Your task to perform on an android device: read, delete, or share a saved page in the chrome app Image 0: 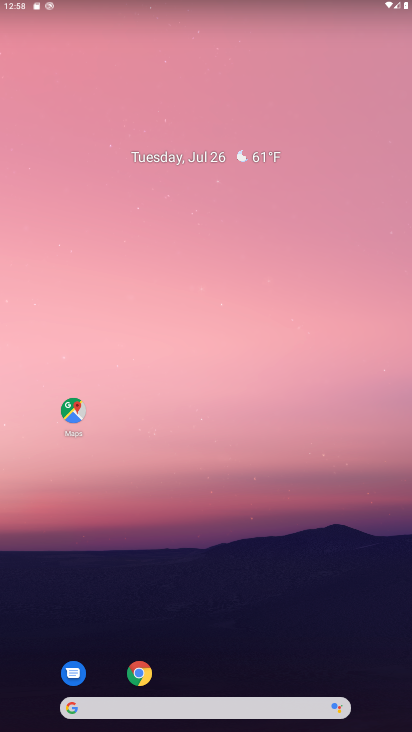
Step 0: click (141, 670)
Your task to perform on an android device: read, delete, or share a saved page in the chrome app Image 1: 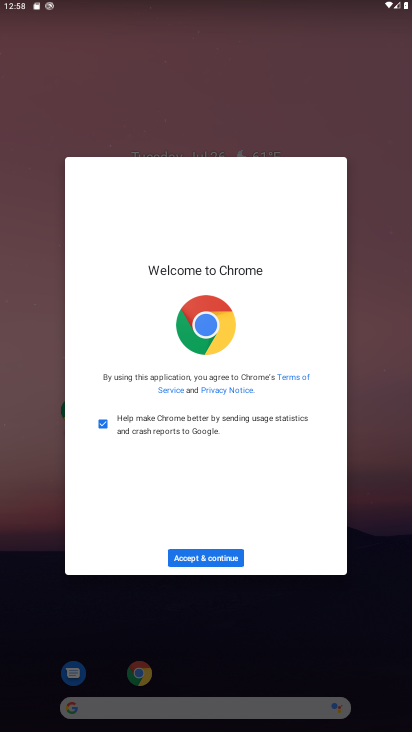
Step 1: click (207, 563)
Your task to perform on an android device: read, delete, or share a saved page in the chrome app Image 2: 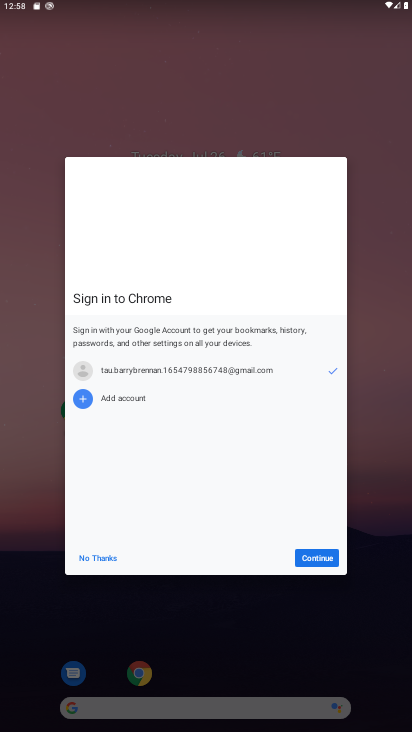
Step 2: click (326, 555)
Your task to perform on an android device: read, delete, or share a saved page in the chrome app Image 3: 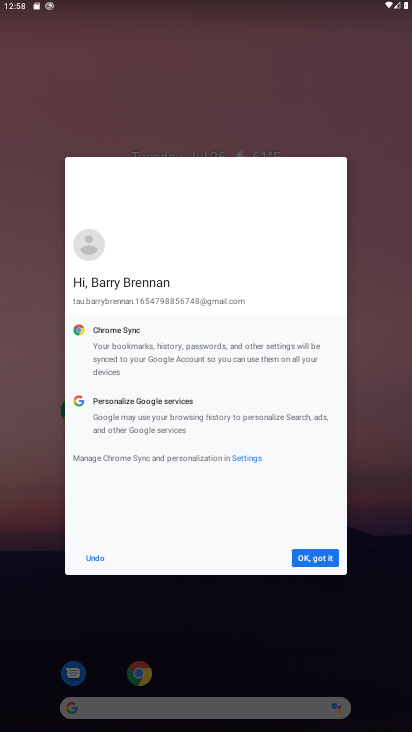
Step 3: click (311, 559)
Your task to perform on an android device: read, delete, or share a saved page in the chrome app Image 4: 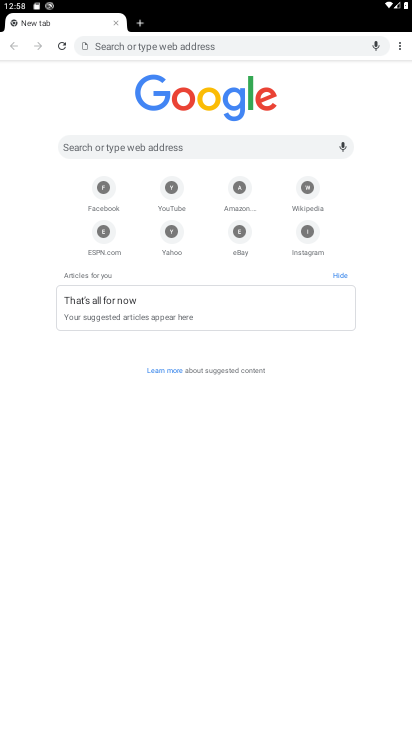
Step 4: click (395, 43)
Your task to perform on an android device: read, delete, or share a saved page in the chrome app Image 5: 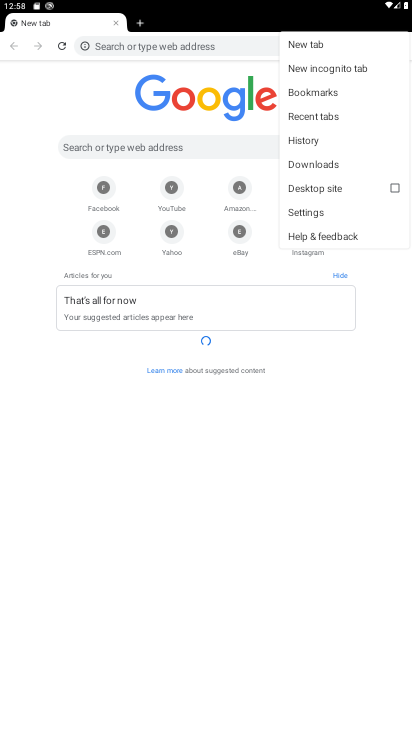
Step 5: click (314, 165)
Your task to perform on an android device: read, delete, or share a saved page in the chrome app Image 6: 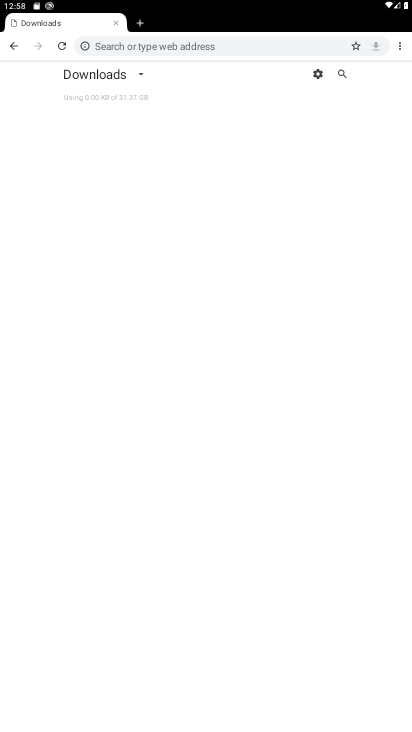
Step 6: click (115, 69)
Your task to perform on an android device: read, delete, or share a saved page in the chrome app Image 7: 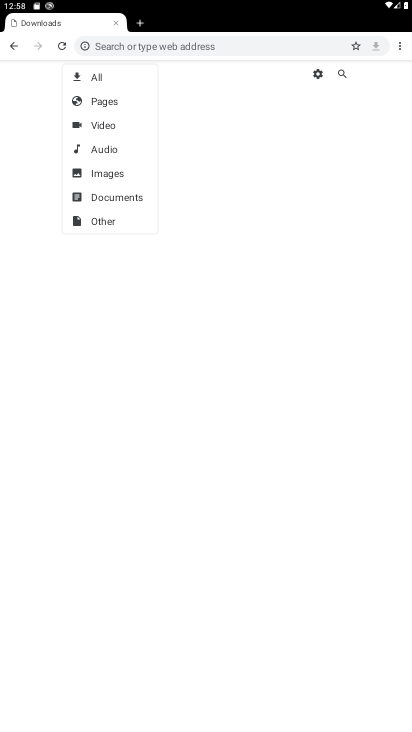
Step 7: click (115, 106)
Your task to perform on an android device: read, delete, or share a saved page in the chrome app Image 8: 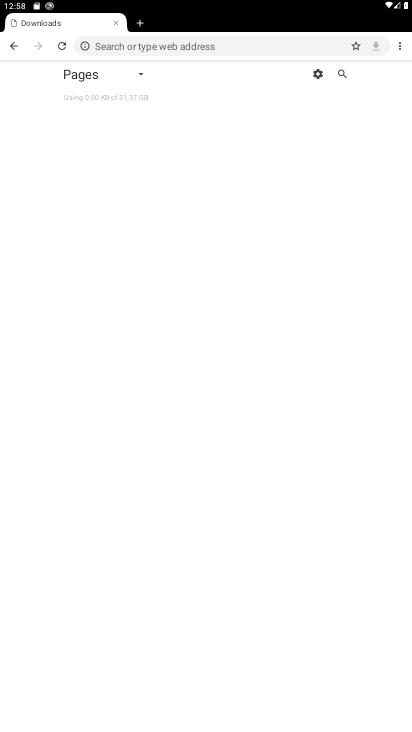
Step 8: task complete